Your task to perform on an android device: toggle sleep mode Image 0: 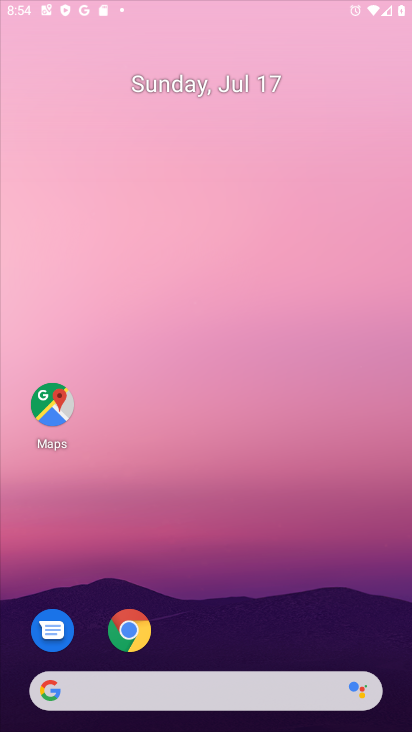
Step 0: click (220, 90)
Your task to perform on an android device: toggle sleep mode Image 1: 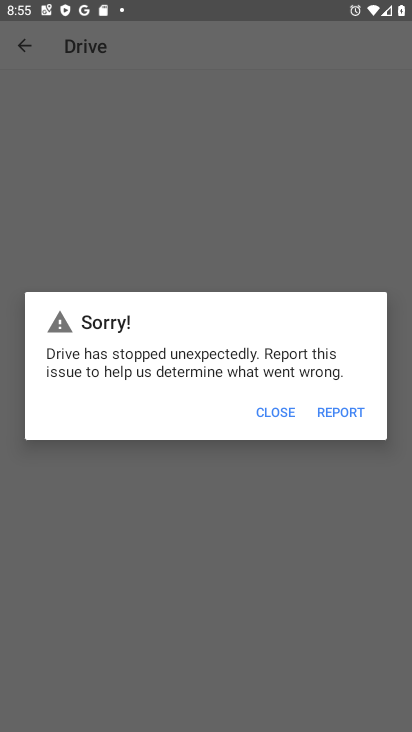
Step 1: press home button
Your task to perform on an android device: toggle sleep mode Image 2: 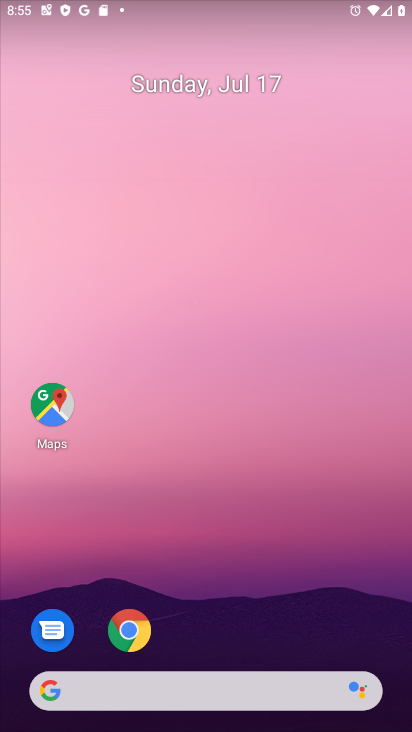
Step 2: drag from (203, 629) to (247, 41)
Your task to perform on an android device: toggle sleep mode Image 3: 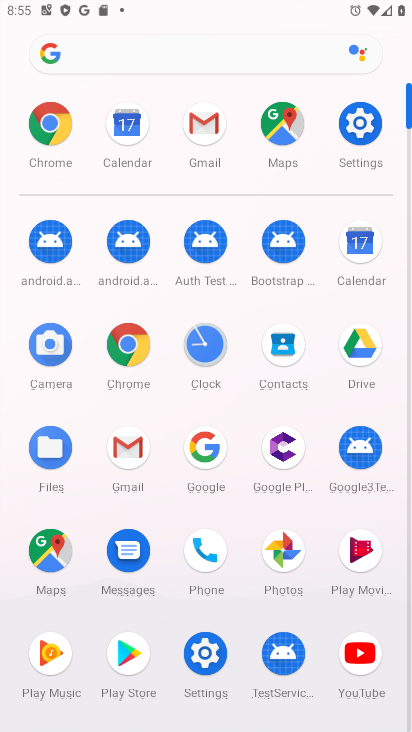
Step 3: click (364, 200)
Your task to perform on an android device: toggle sleep mode Image 4: 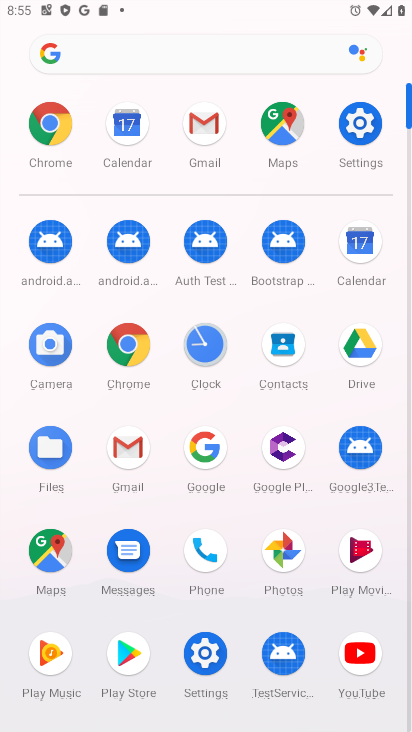
Step 4: click (350, 126)
Your task to perform on an android device: toggle sleep mode Image 5: 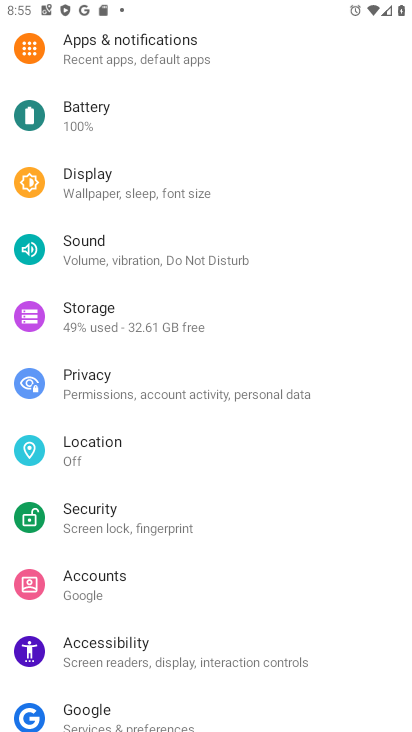
Step 5: task complete